Your task to perform on an android device: Go to Google Image 0: 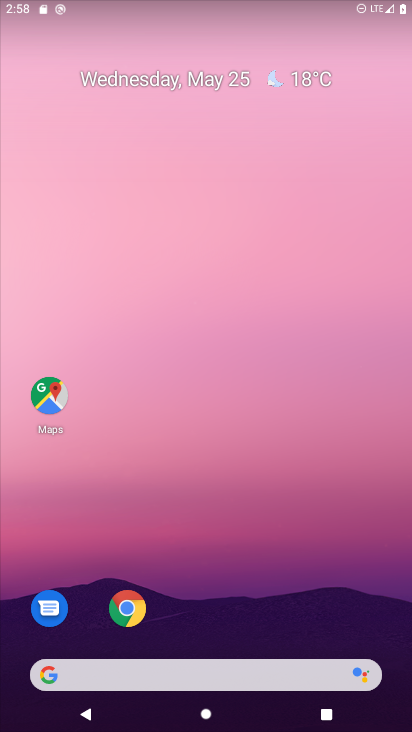
Step 0: click (131, 607)
Your task to perform on an android device: Go to Google Image 1: 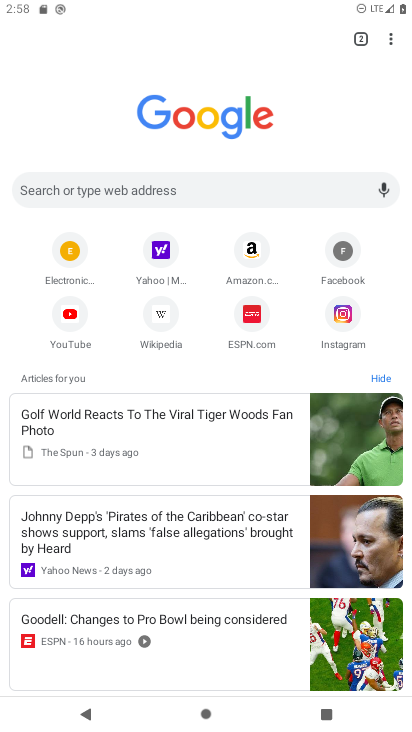
Step 1: task complete